Your task to perform on an android device: empty trash in the gmail app Image 0: 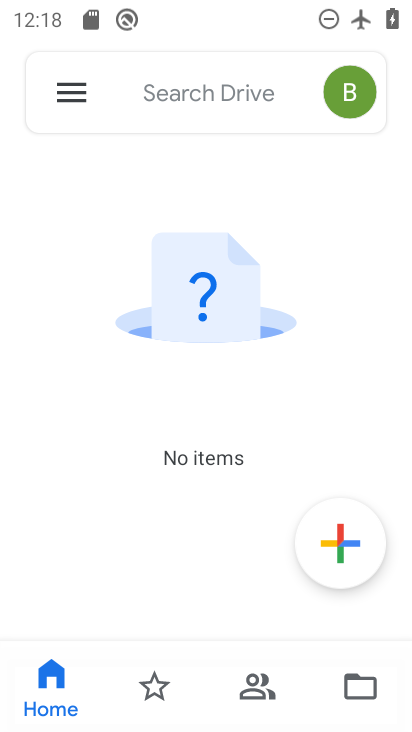
Step 0: press home button
Your task to perform on an android device: empty trash in the gmail app Image 1: 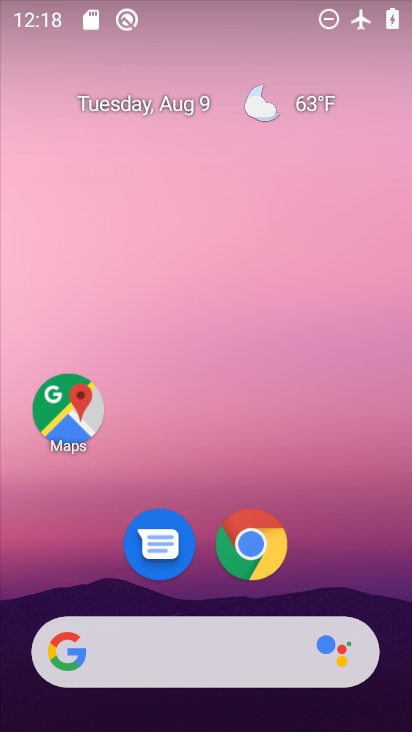
Step 1: drag from (194, 674) to (282, 56)
Your task to perform on an android device: empty trash in the gmail app Image 2: 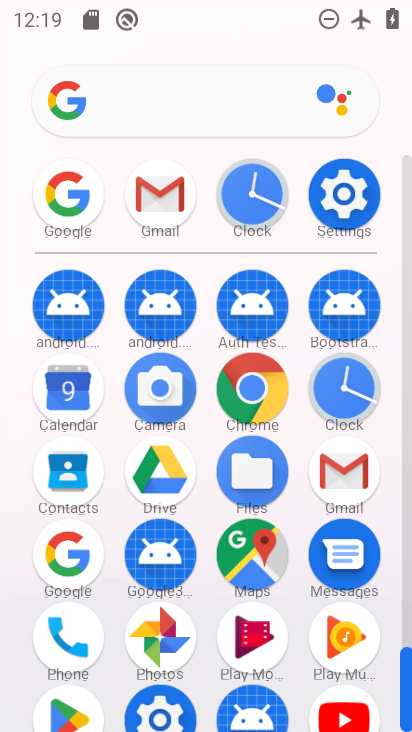
Step 2: click (158, 193)
Your task to perform on an android device: empty trash in the gmail app Image 3: 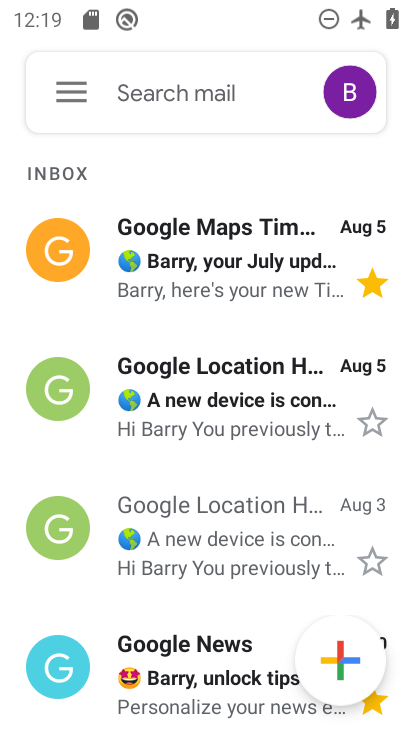
Step 3: click (77, 100)
Your task to perform on an android device: empty trash in the gmail app Image 4: 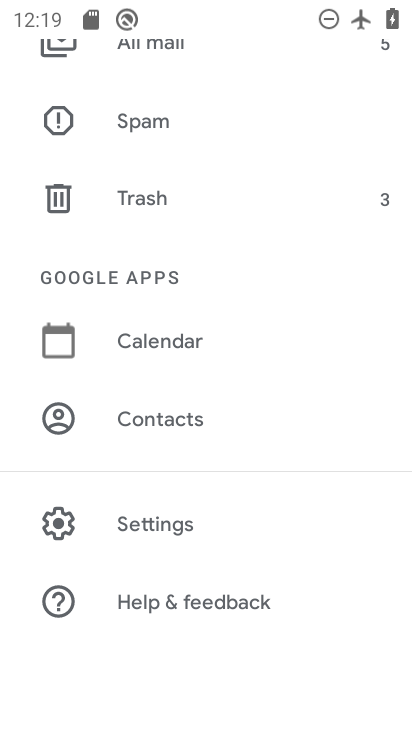
Step 4: click (123, 204)
Your task to perform on an android device: empty trash in the gmail app Image 5: 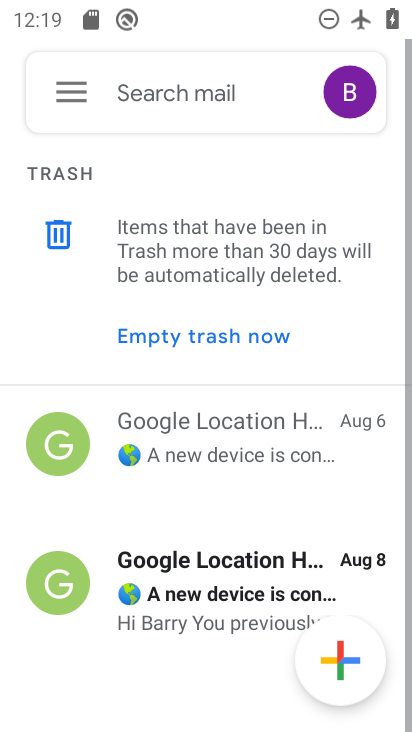
Step 5: click (182, 337)
Your task to perform on an android device: empty trash in the gmail app Image 6: 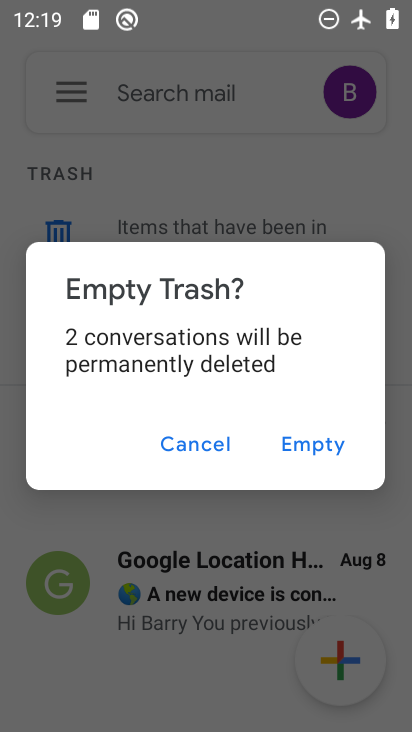
Step 6: click (327, 443)
Your task to perform on an android device: empty trash in the gmail app Image 7: 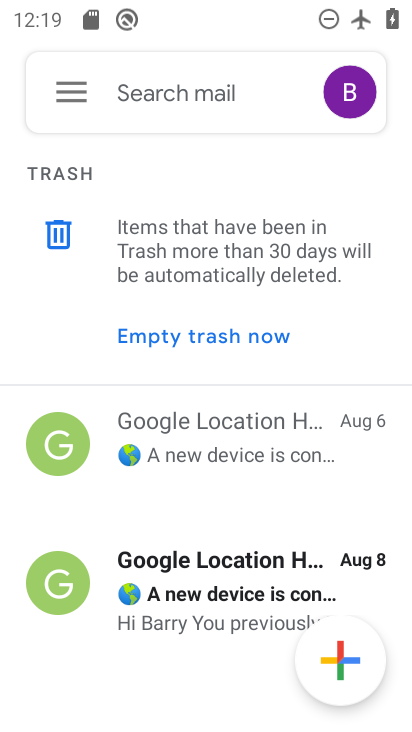
Step 7: click (257, 340)
Your task to perform on an android device: empty trash in the gmail app Image 8: 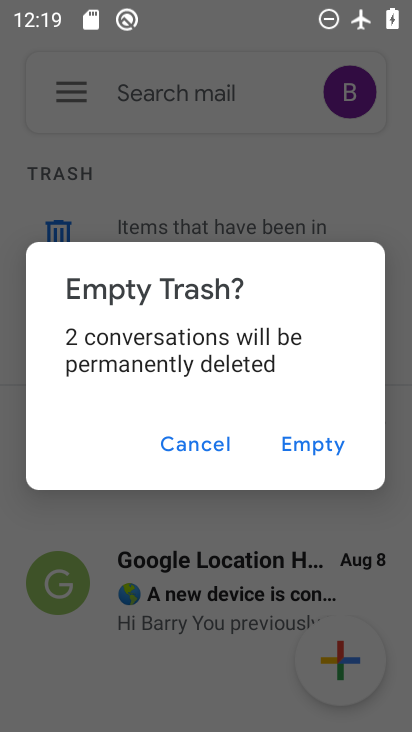
Step 8: click (313, 452)
Your task to perform on an android device: empty trash in the gmail app Image 9: 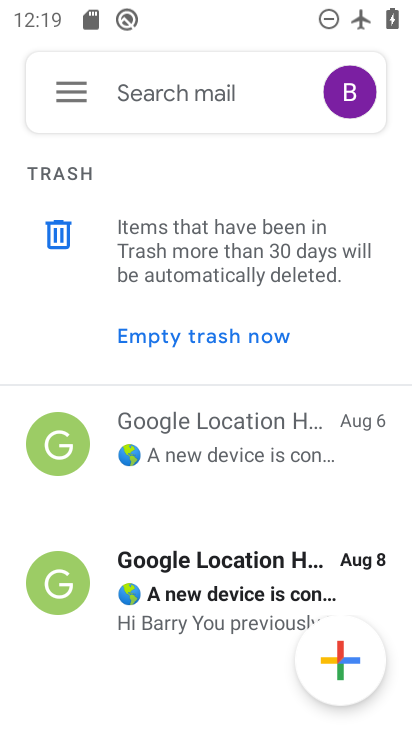
Step 9: task complete